Your task to perform on an android device: Go to notification settings Image 0: 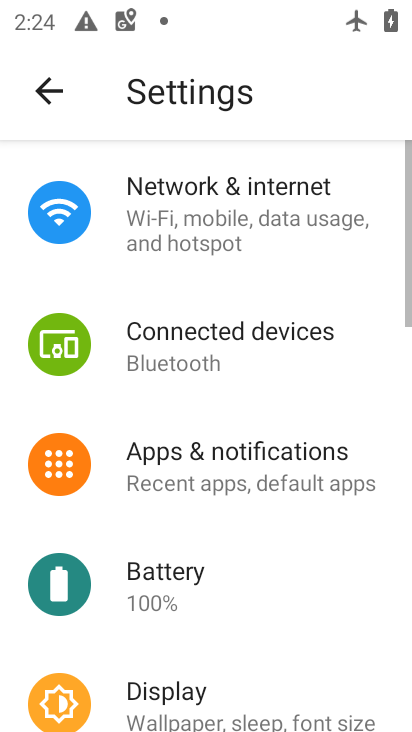
Step 0: click (156, 471)
Your task to perform on an android device: Go to notification settings Image 1: 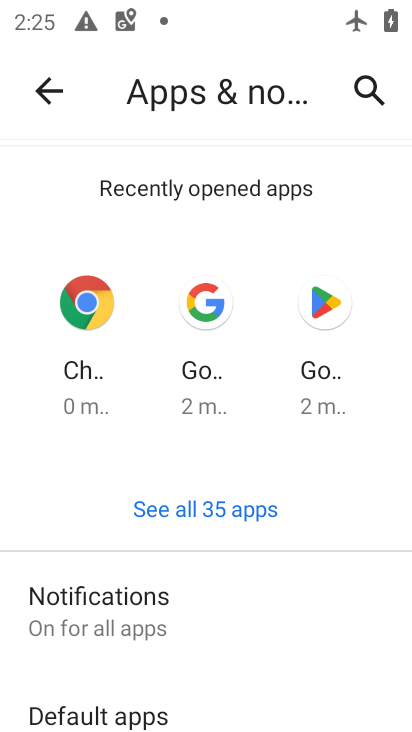
Step 1: click (85, 605)
Your task to perform on an android device: Go to notification settings Image 2: 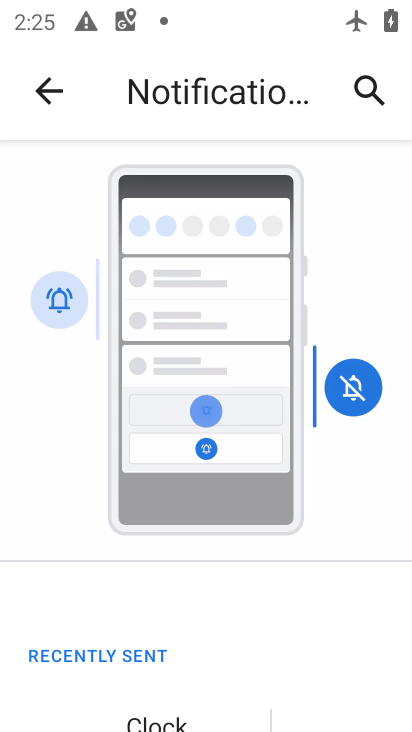
Step 2: task complete